Your task to perform on an android device: Is it going to rain tomorrow? Image 0: 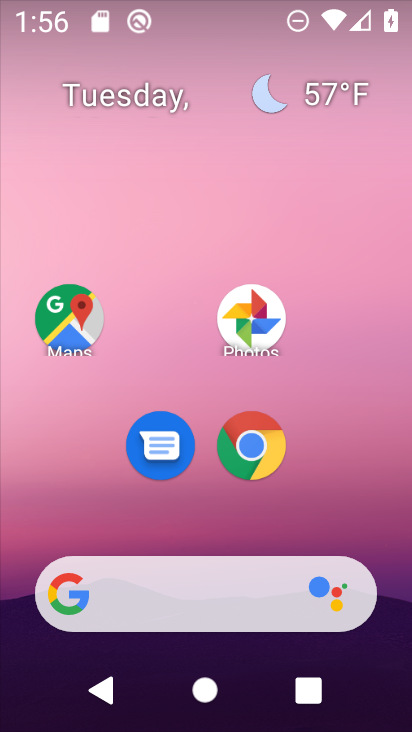
Step 0: click (265, 592)
Your task to perform on an android device: Is it going to rain tomorrow? Image 1: 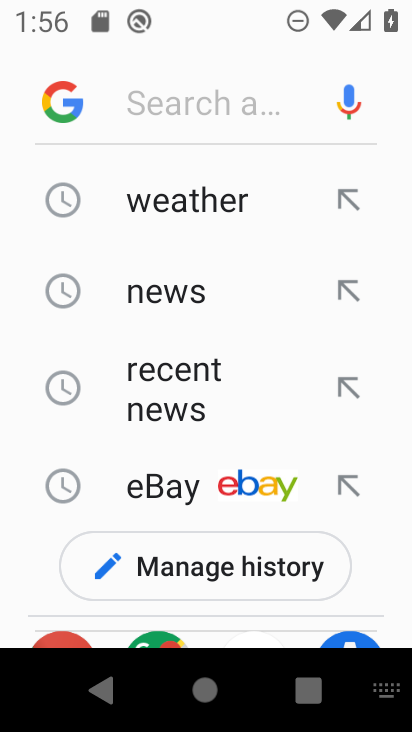
Step 1: click (214, 210)
Your task to perform on an android device: Is it going to rain tomorrow? Image 2: 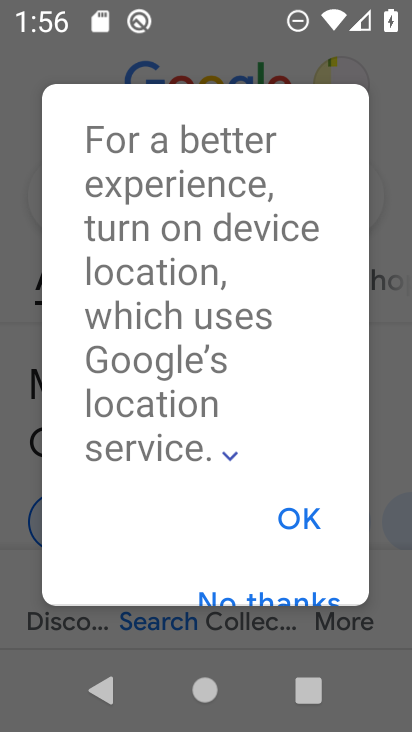
Step 2: click (310, 605)
Your task to perform on an android device: Is it going to rain tomorrow? Image 3: 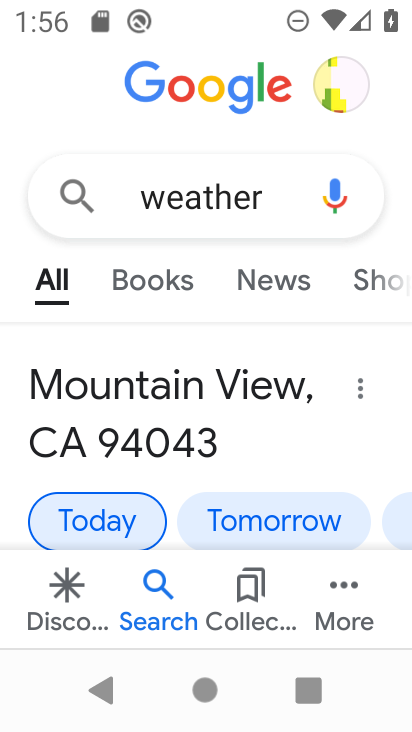
Step 3: click (323, 524)
Your task to perform on an android device: Is it going to rain tomorrow? Image 4: 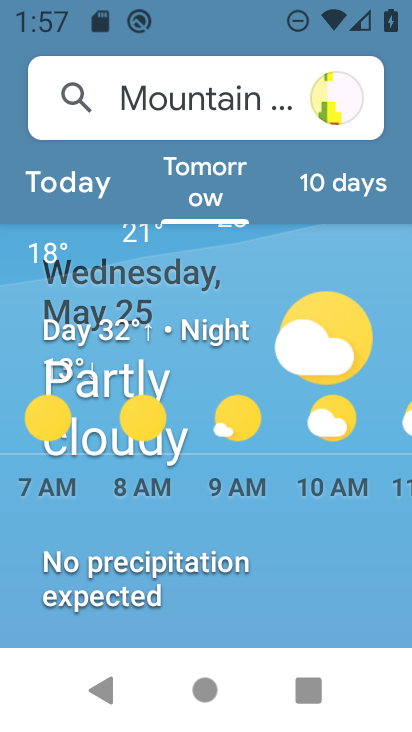
Step 4: task complete